Your task to perform on an android device: change the clock display to show seconds Image 0: 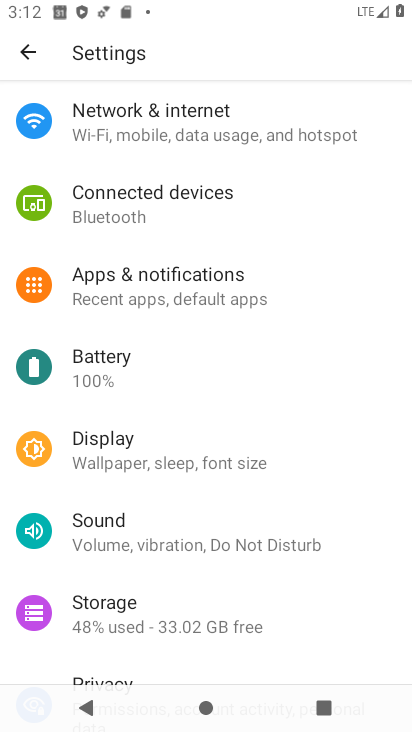
Step 0: press home button
Your task to perform on an android device: change the clock display to show seconds Image 1: 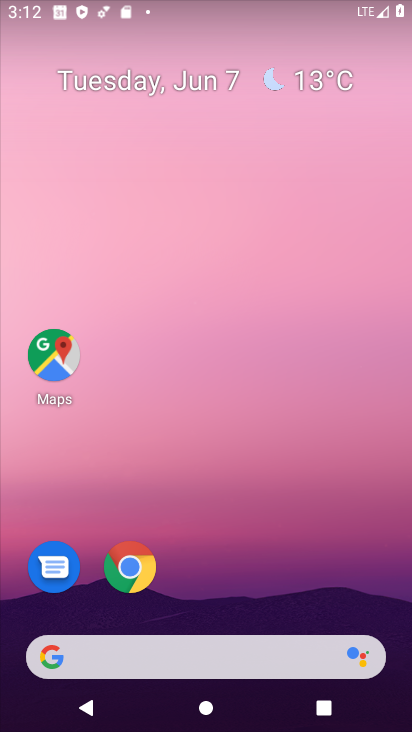
Step 1: drag from (309, 573) to (310, 168)
Your task to perform on an android device: change the clock display to show seconds Image 2: 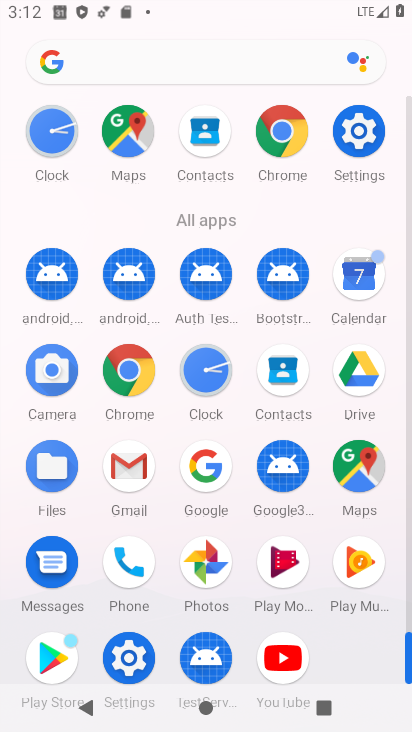
Step 2: click (224, 361)
Your task to perform on an android device: change the clock display to show seconds Image 3: 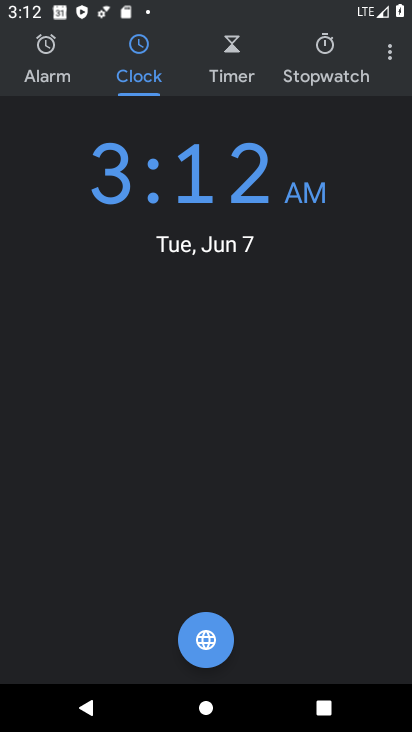
Step 3: click (388, 53)
Your task to perform on an android device: change the clock display to show seconds Image 4: 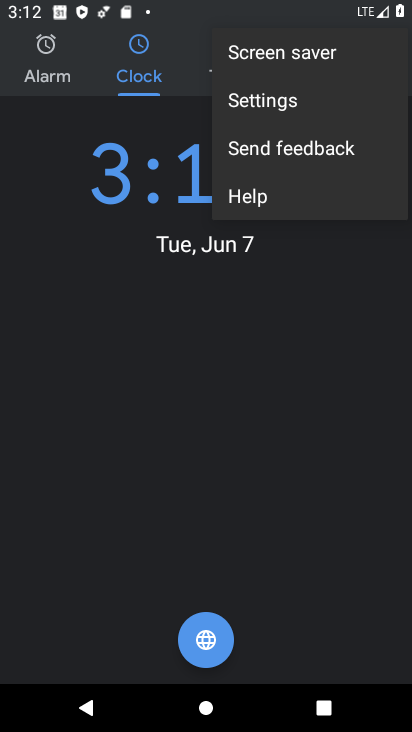
Step 4: click (290, 84)
Your task to perform on an android device: change the clock display to show seconds Image 5: 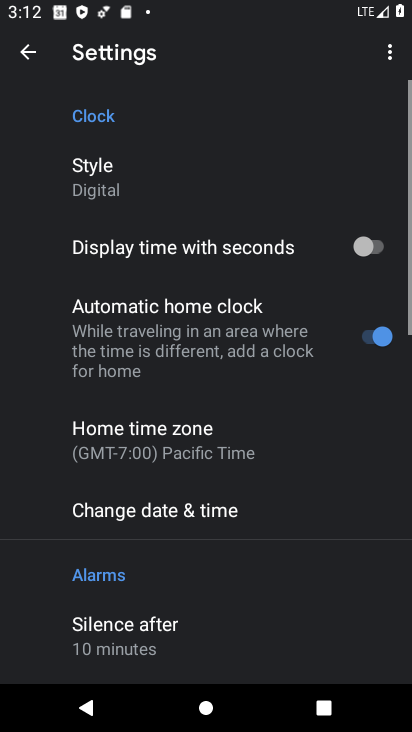
Step 5: click (280, 268)
Your task to perform on an android device: change the clock display to show seconds Image 6: 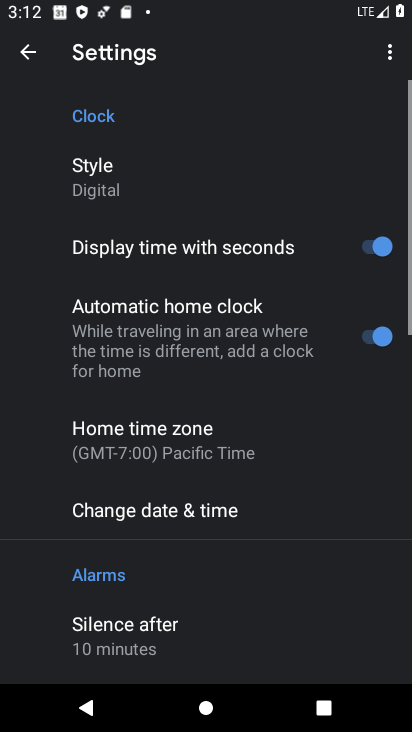
Step 6: task complete